Your task to perform on an android device: add a contact Image 0: 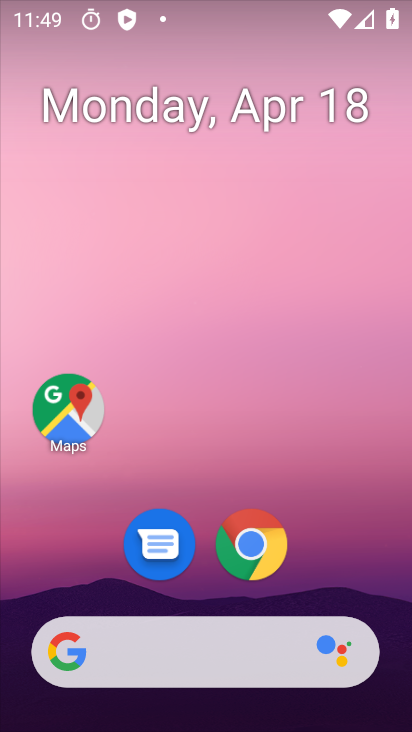
Step 0: drag from (345, 575) to (346, 6)
Your task to perform on an android device: add a contact Image 1: 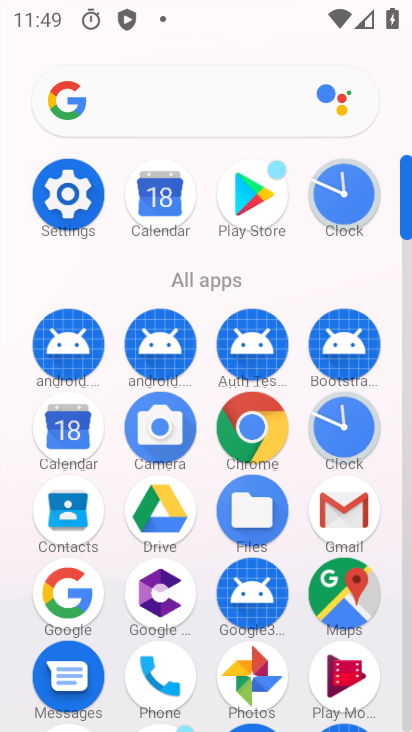
Step 1: click (67, 513)
Your task to perform on an android device: add a contact Image 2: 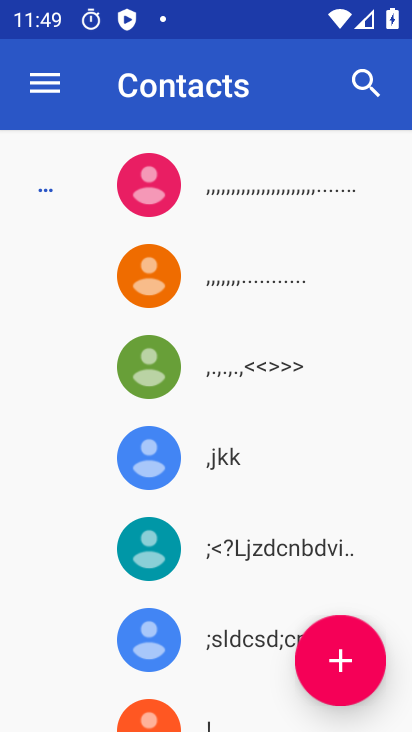
Step 2: click (353, 681)
Your task to perform on an android device: add a contact Image 3: 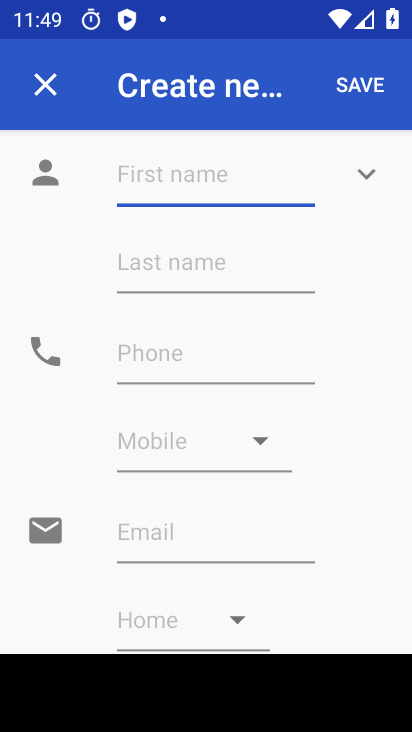
Step 3: click (134, 192)
Your task to perform on an android device: add a contact Image 4: 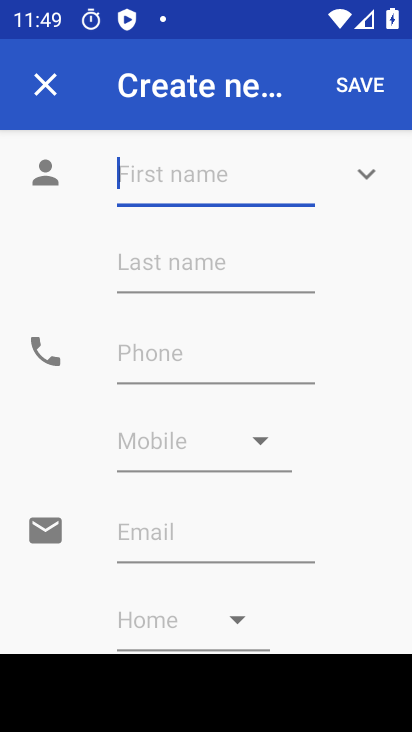
Step 4: type "rima"
Your task to perform on an android device: add a contact Image 5: 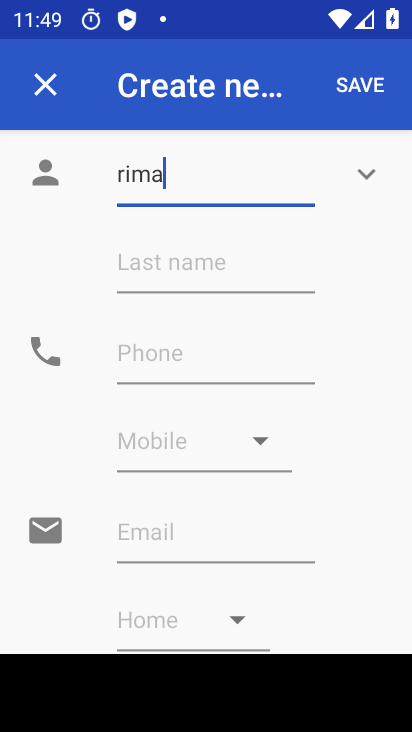
Step 5: click (265, 365)
Your task to perform on an android device: add a contact Image 6: 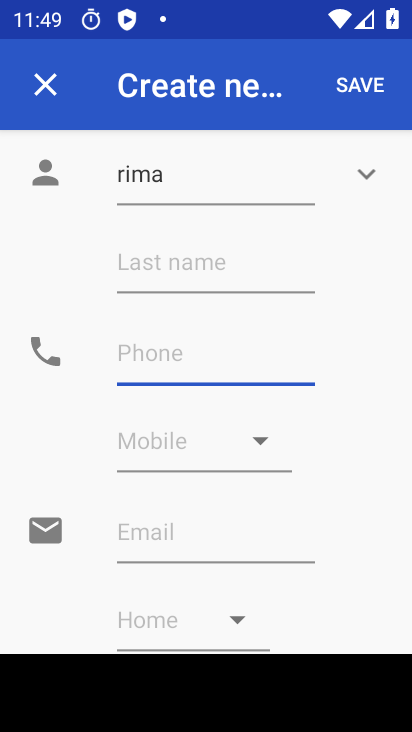
Step 6: type "1542654678"
Your task to perform on an android device: add a contact Image 7: 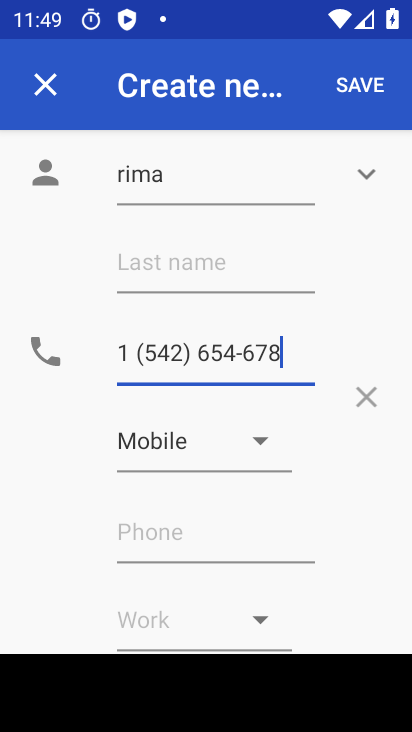
Step 7: click (355, 86)
Your task to perform on an android device: add a contact Image 8: 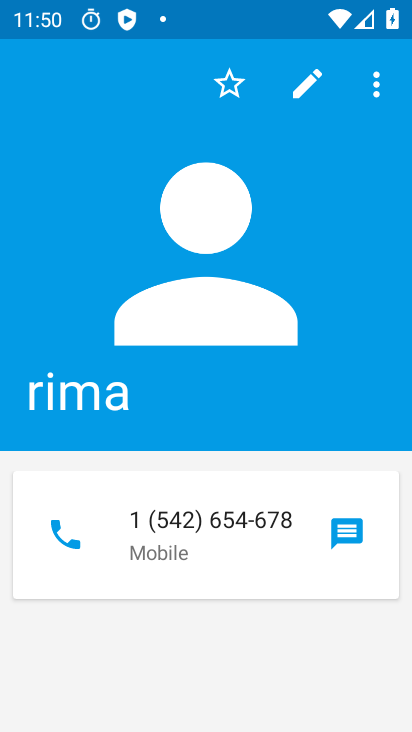
Step 8: task complete